Your task to perform on an android device: turn off location Image 0: 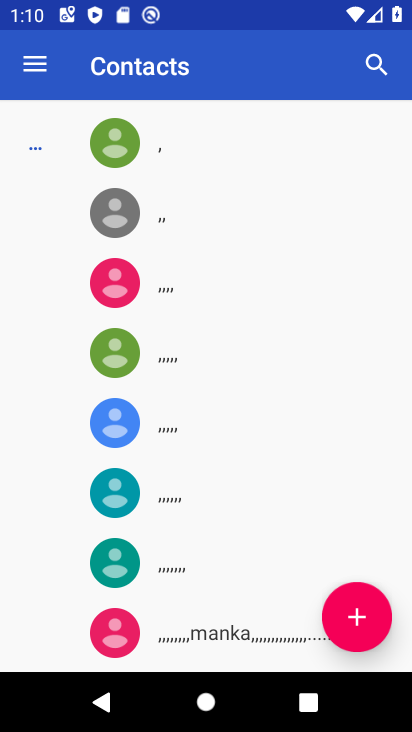
Step 0: press home button
Your task to perform on an android device: turn off location Image 1: 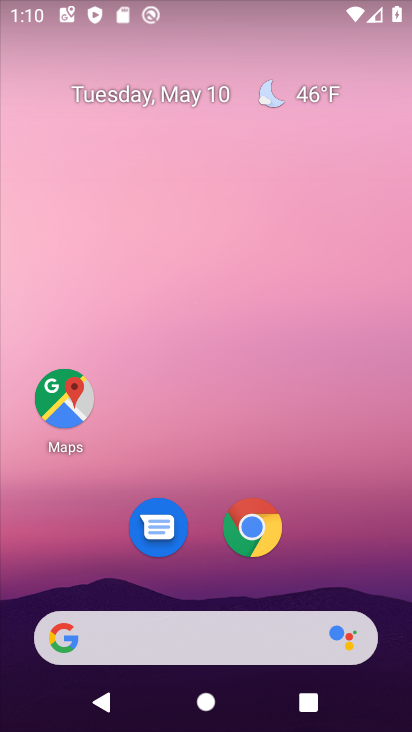
Step 1: drag from (328, 547) to (341, 11)
Your task to perform on an android device: turn off location Image 2: 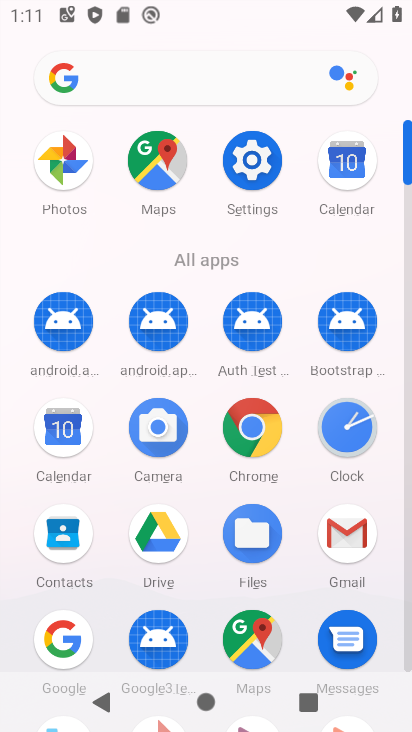
Step 2: click (254, 174)
Your task to perform on an android device: turn off location Image 3: 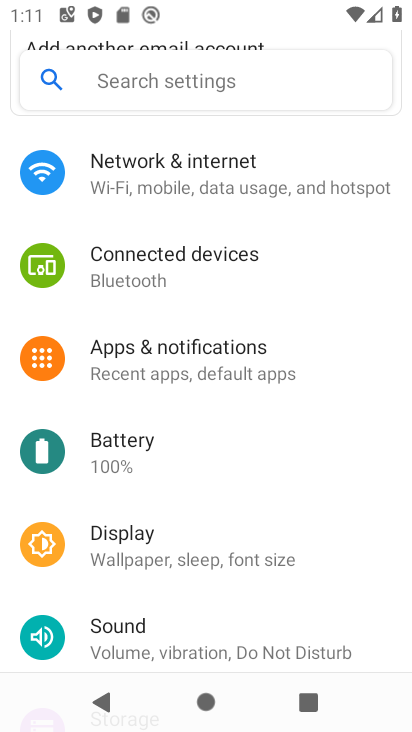
Step 3: drag from (328, 537) to (331, 278)
Your task to perform on an android device: turn off location Image 4: 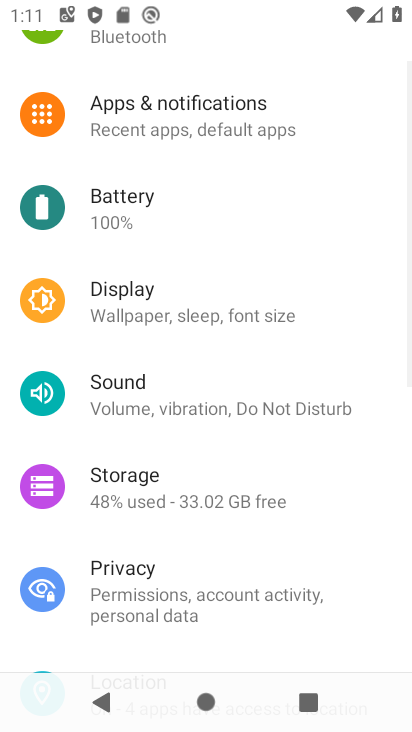
Step 4: drag from (317, 503) to (318, 219)
Your task to perform on an android device: turn off location Image 5: 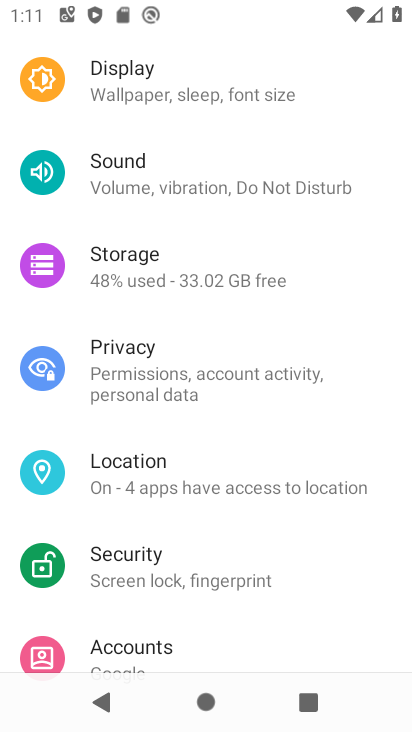
Step 5: click (151, 487)
Your task to perform on an android device: turn off location Image 6: 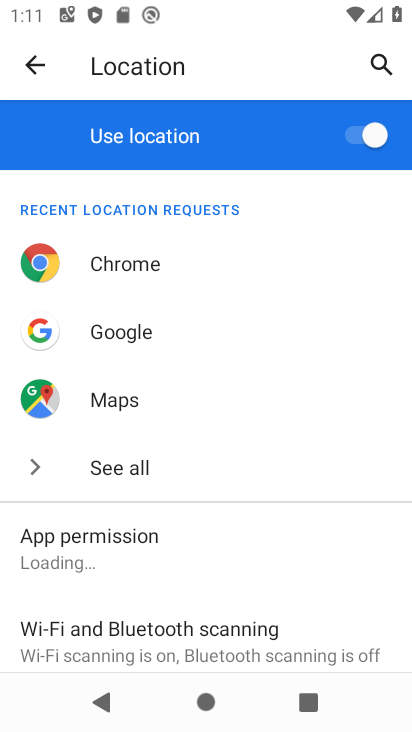
Step 6: click (367, 144)
Your task to perform on an android device: turn off location Image 7: 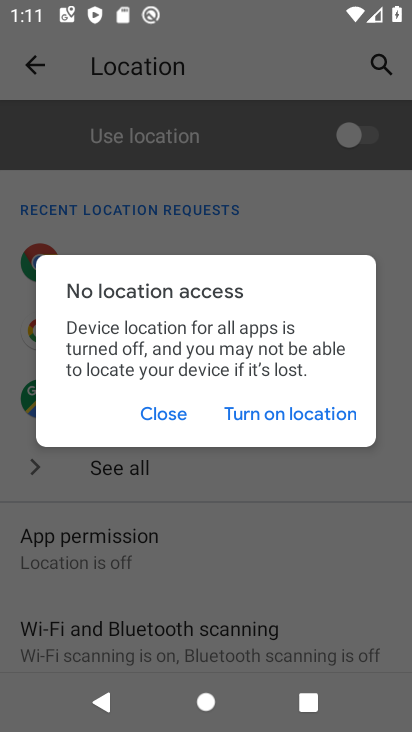
Step 7: click (167, 418)
Your task to perform on an android device: turn off location Image 8: 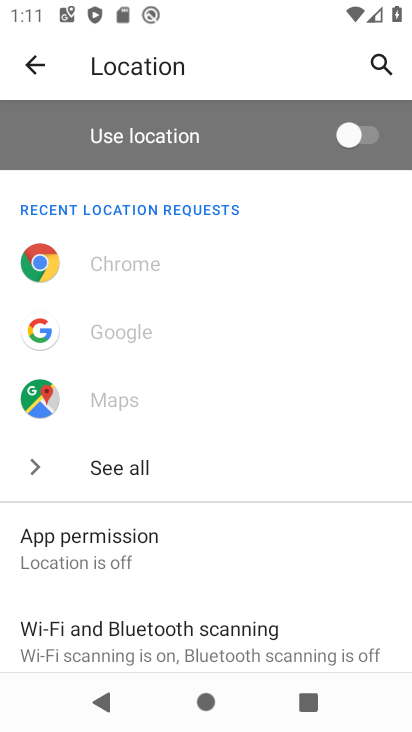
Step 8: task complete